Your task to perform on an android device: delete browsing data in the chrome app Image 0: 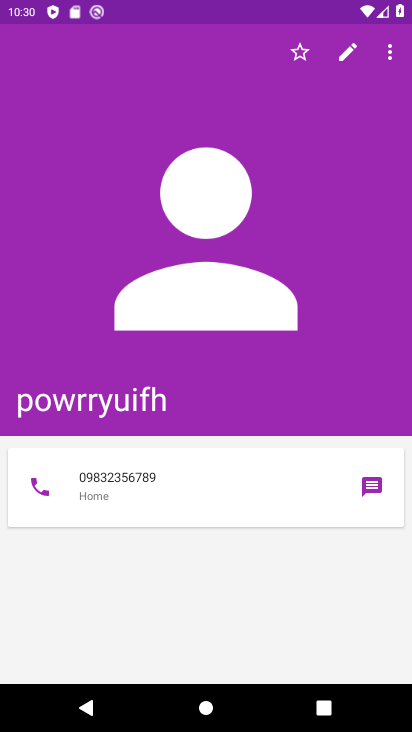
Step 0: press home button
Your task to perform on an android device: delete browsing data in the chrome app Image 1: 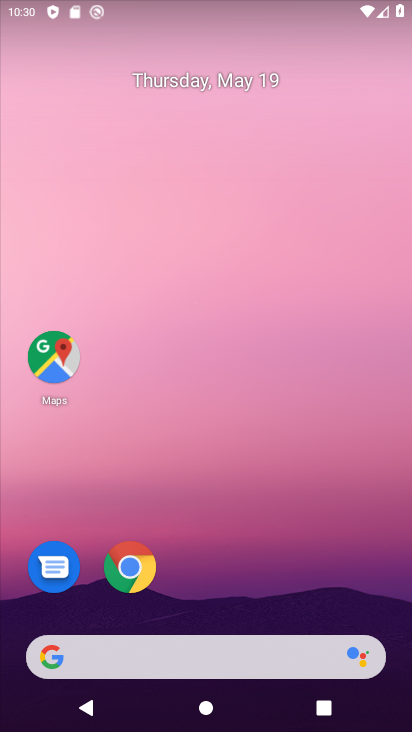
Step 1: click (132, 572)
Your task to perform on an android device: delete browsing data in the chrome app Image 2: 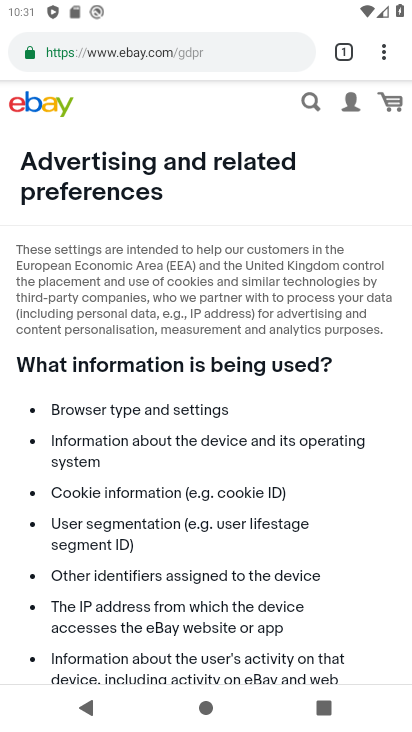
Step 2: click (380, 51)
Your task to perform on an android device: delete browsing data in the chrome app Image 3: 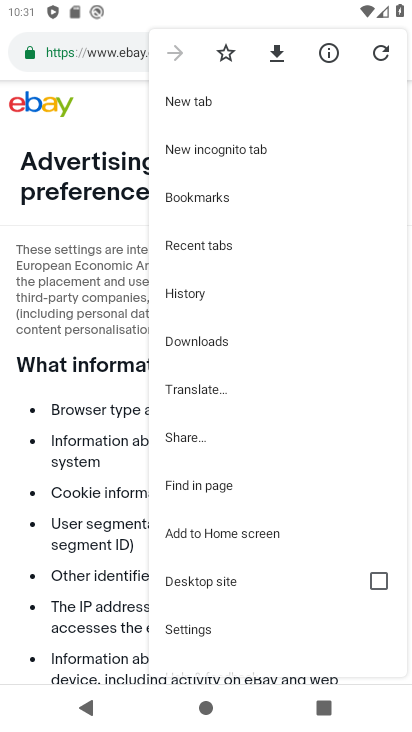
Step 3: click (180, 292)
Your task to perform on an android device: delete browsing data in the chrome app Image 4: 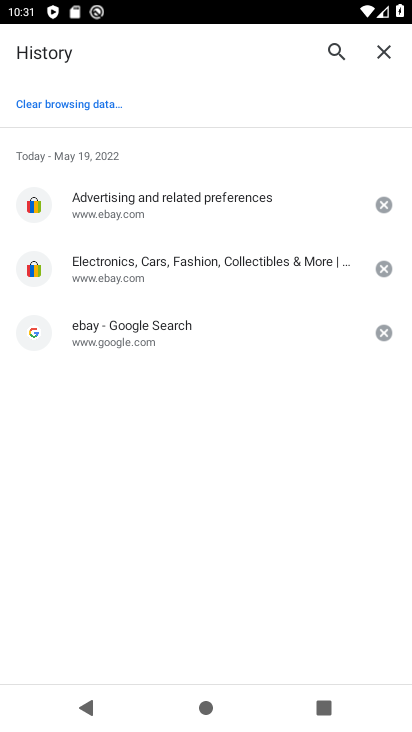
Step 4: click (81, 104)
Your task to perform on an android device: delete browsing data in the chrome app Image 5: 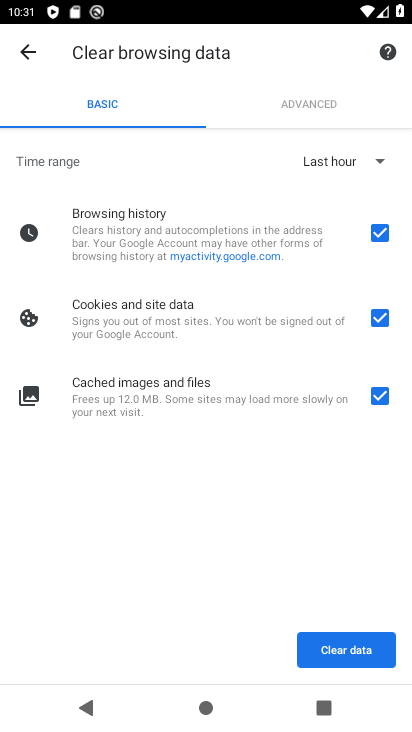
Step 5: click (372, 401)
Your task to perform on an android device: delete browsing data in the chrome app Image 6: 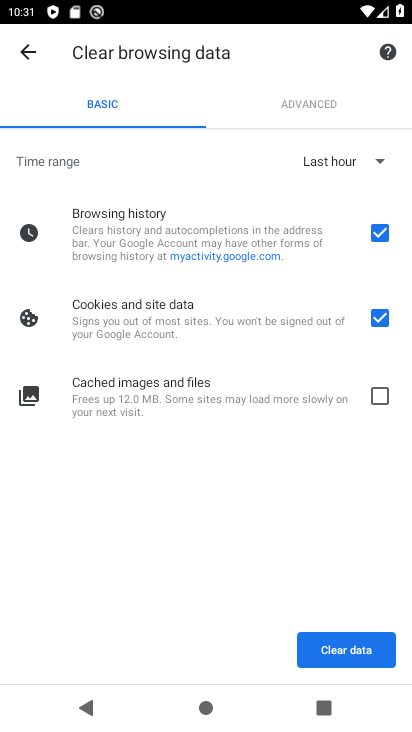
Step 6: click (377, 314)
Your task to perform on an android device: delete browsing data in the chrome app Image 7: 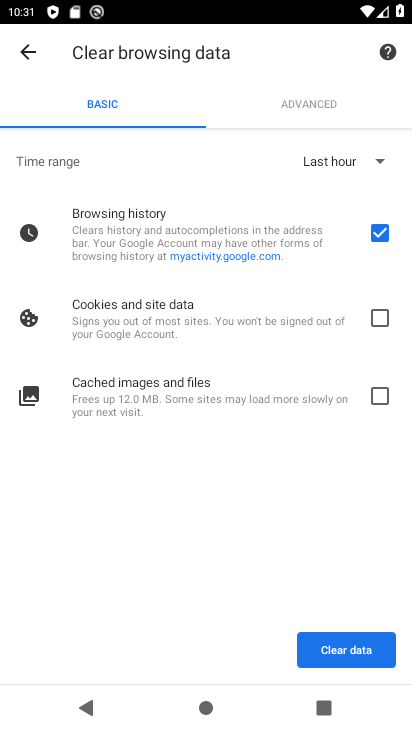
Step 7: click (352, 648)
Your task to perform on an android device: delete browsing data in the chrome app Image 8: 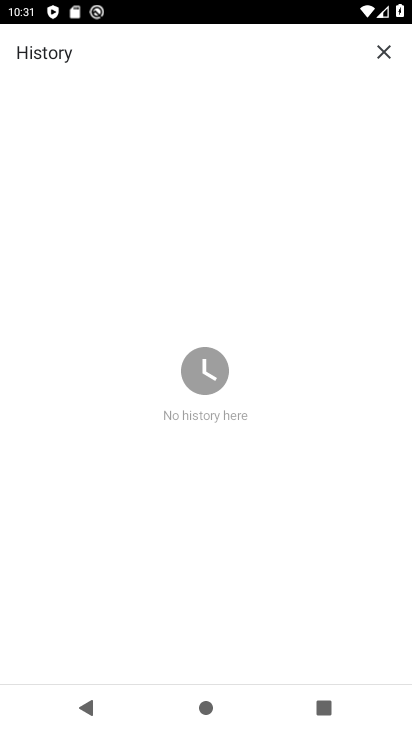
Step 8: task complete